Your task to perform on an android device: turn off priority inbox in the gmail app Image 0: 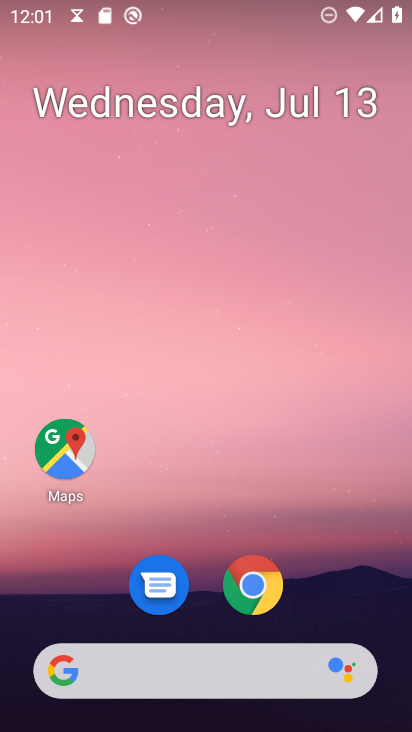
Step 0: drag from (194, 660) to (380, 79)
Your task to perform on an android device: turn off priority inbox in the gmail app Image 1: 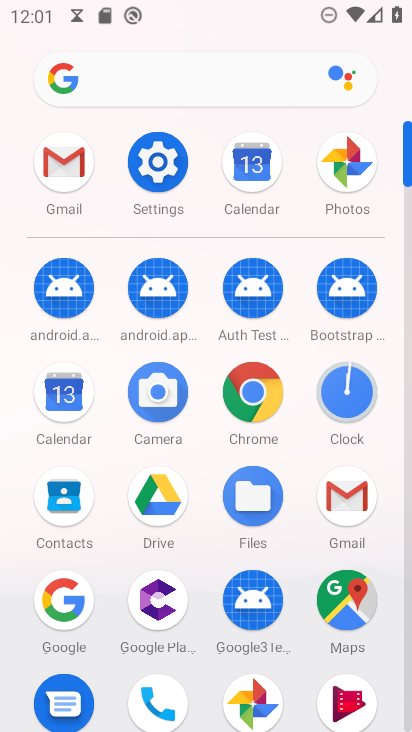
Step 1: click (347, 499)
Your task to perform on an android device: turn off priority inbox in the gmail app Image 2: 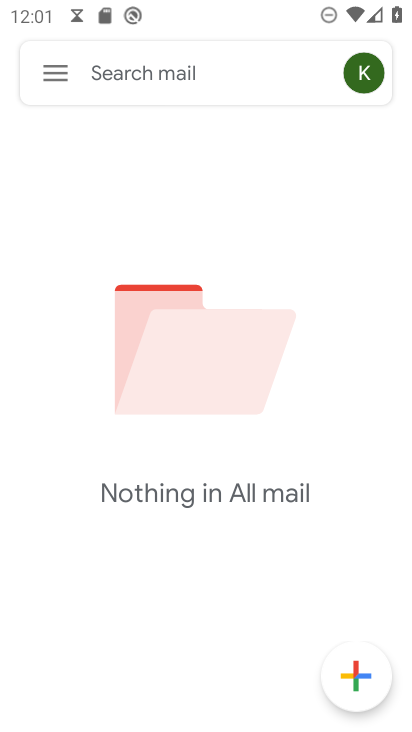
Step 2: click (60, 76)
Your task to perform on an android device: turn off priority inbox in the gmail app Image 3: 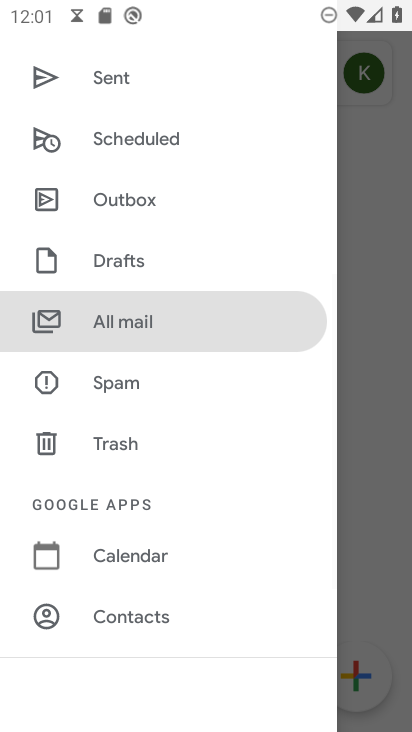
Step 3: drag from (145, 631) to (309, 157)
Your task to perform on an android device: turn off priority inbox in the gmail app Image 4: 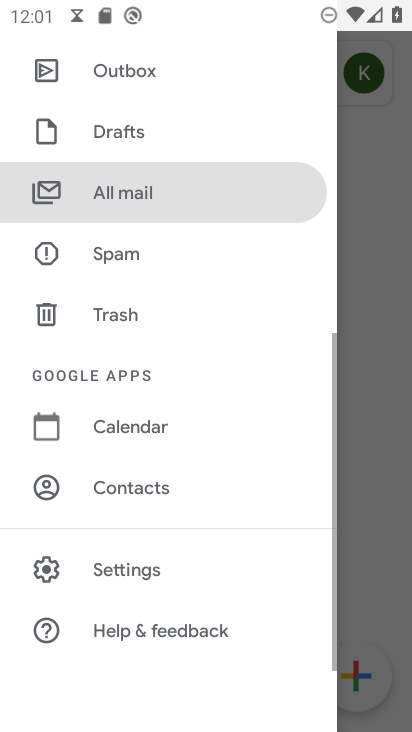
Step 4: click (130, 570)
Your task to perform on an android device: turn off priority inbox in the gmail app Image 5: 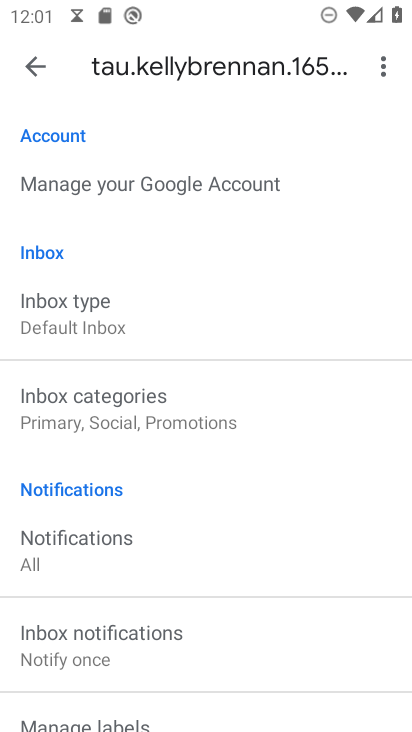
Step 5: click (77, 308)
Your task to perform on an android device: turn off priority inbox in the gmail app Image 6: 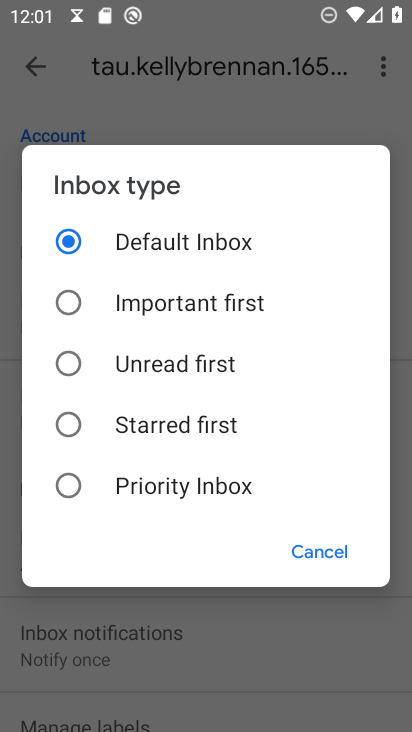
Step 6: click (65, 484)
Your task to perform on an android device: turn off priority inbox in the gmail app Image 7: 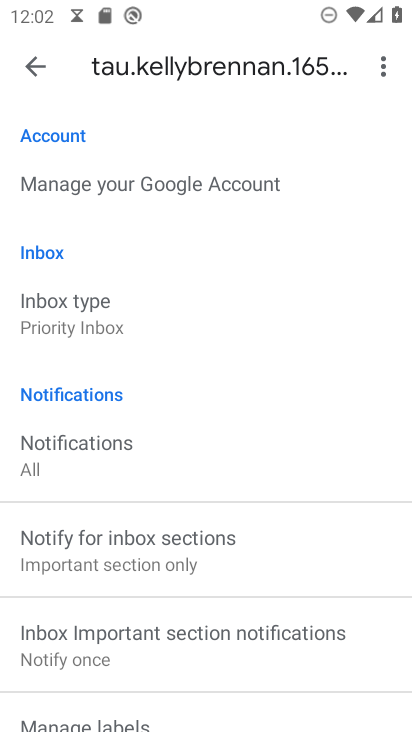
Step 7: click (67, 329)
Your task to perform on an android device: turn off priority inbox in the gmail app Image 8: 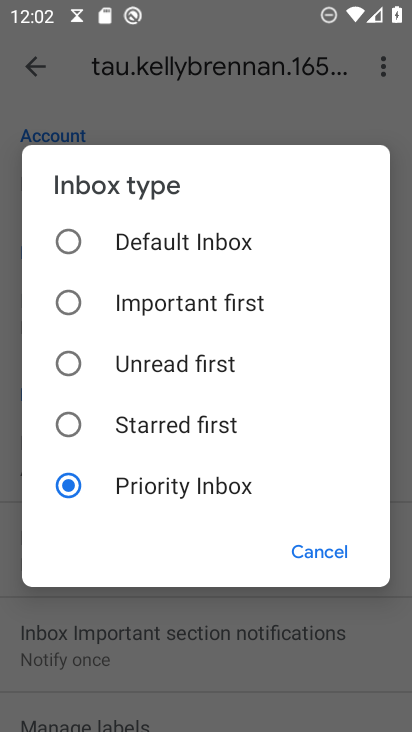
Step 8: click (65, 241)
Your task to perform on an android device: turn off priority inbox in the gmail app Image 9: 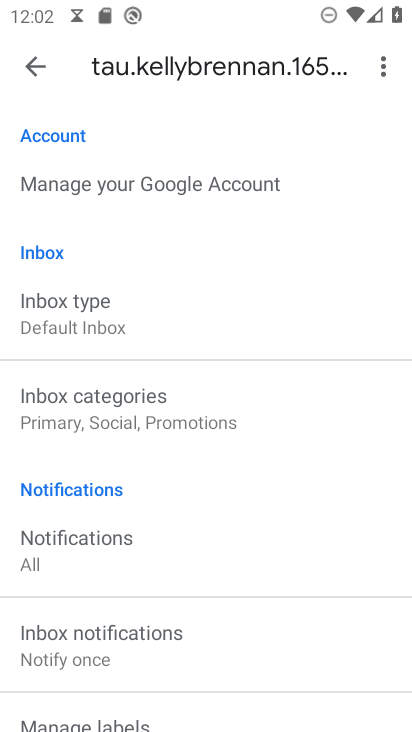
Step 9: task complete